Your task to perform on an android device: Open notification settings Image 0: 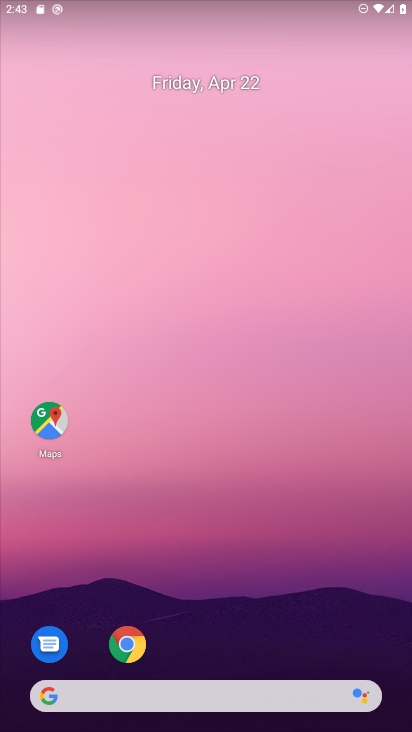
Step 0: drag from (292, 471) to (294, 114)
Your task to perform on an android device: Open notification settings Image 1: 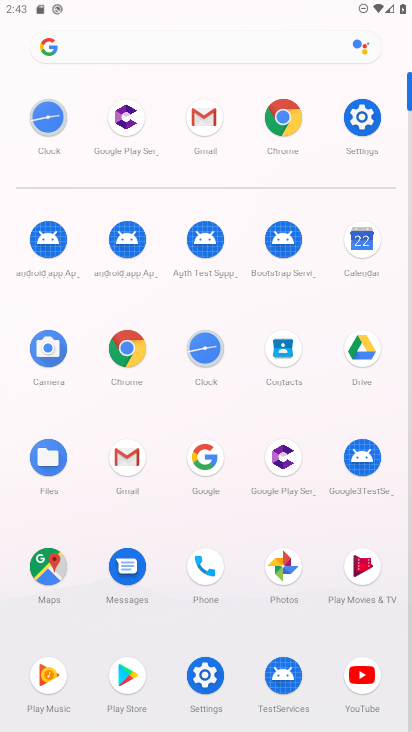
Step 1: click (366, 130)
Your task to perform on an android device: Open notification settings Image 2: 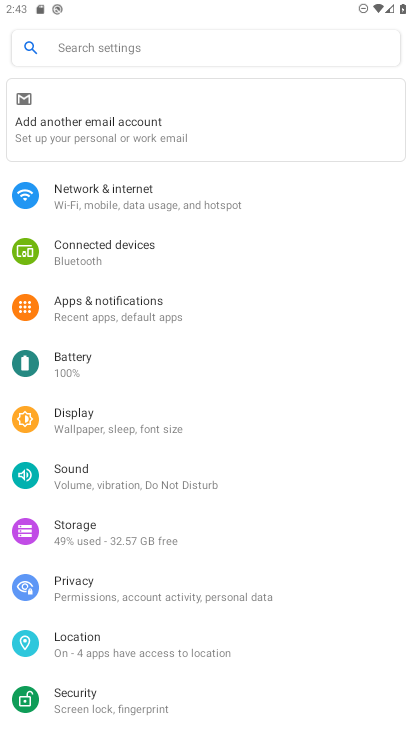
Step 2: click (113, 300)
Your task to perform on an android device: Open notification settings Image 3: 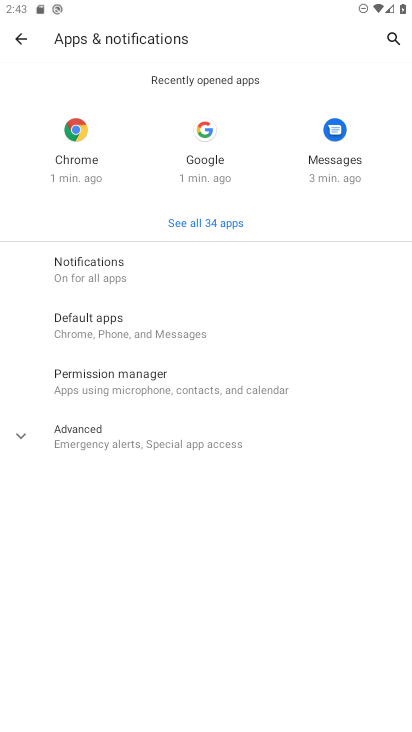
Step 3: click (115, 277)
Your task to perform on an android device: Open notification settings Image 4: 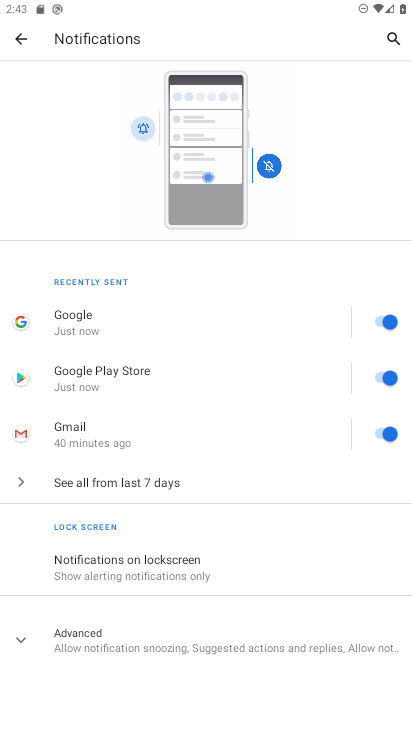
Step 4: task complete